Your task to perform on an android device: check storage Image 0: 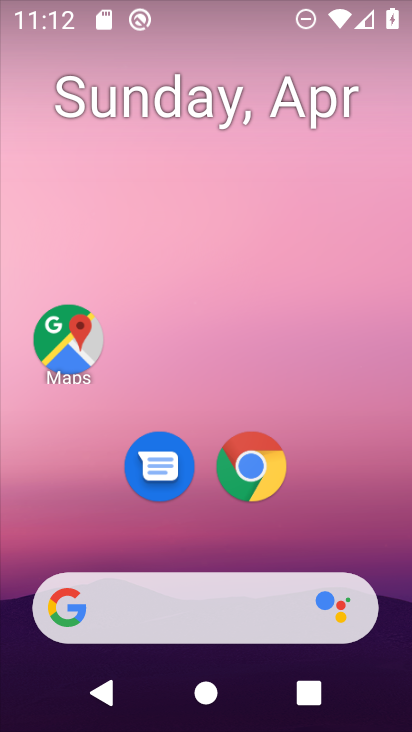
Step 0: drag from (371, 467) to (369, 103)
Your task to perform on an android device: check storage Image 1: 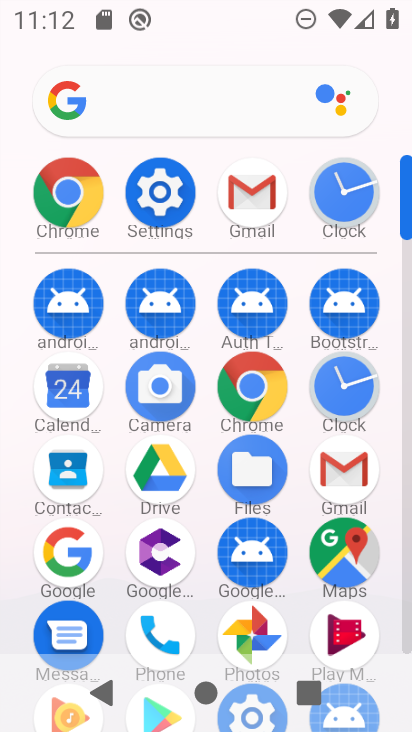
Step 1: click (163, 190)
Your task to perform on an android device: check storage Image 2: 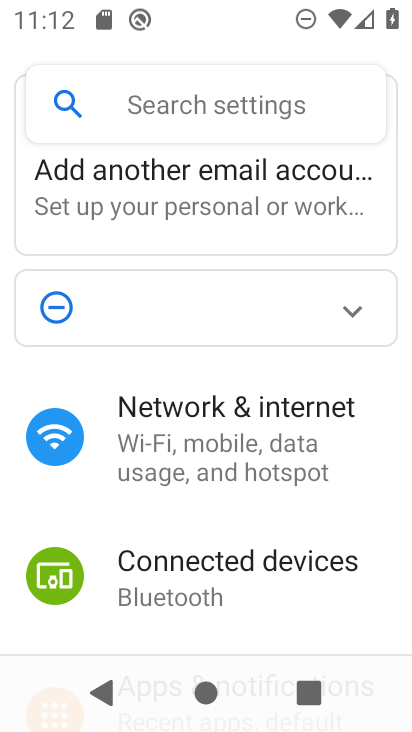
Step 2: drag from (371, 613) to (383, 408)
Your task to perform on an android device: check storage Image 3: 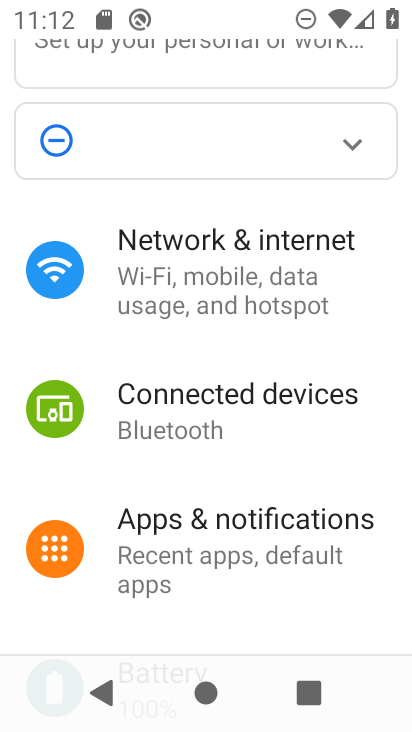
Step 3: drag from (358, 604) to (345, 365)
Your task to perform on an android device: check storage Image 4: 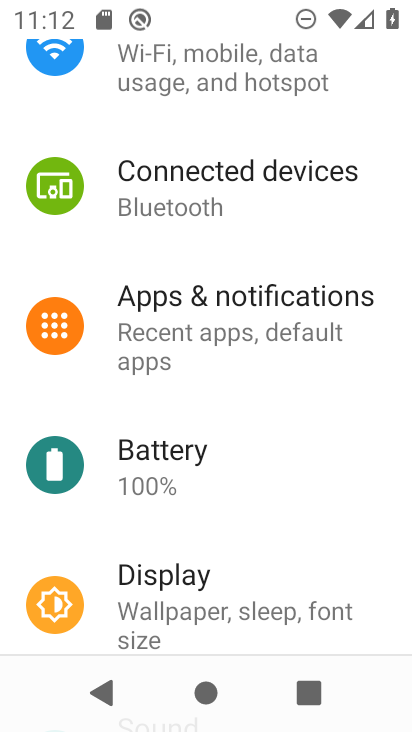
Step 4: drag from (293, 496) to (318, 298)
Your task to perform on an android device: check storage Image 5: 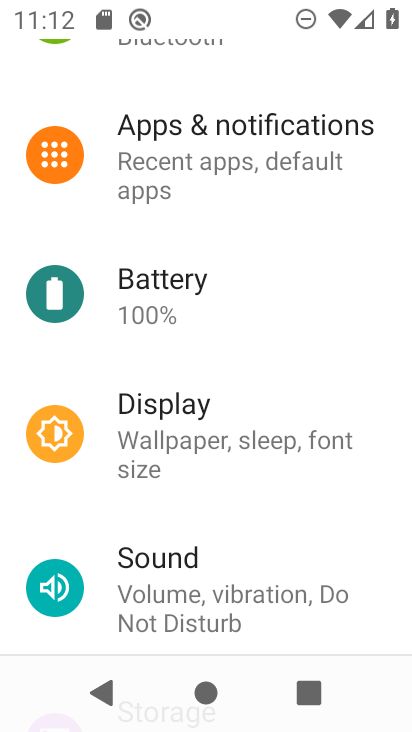
Step 5: drag from (361, 621) to (374, 365)
Your task to perform on an android device: check storage Image 6: 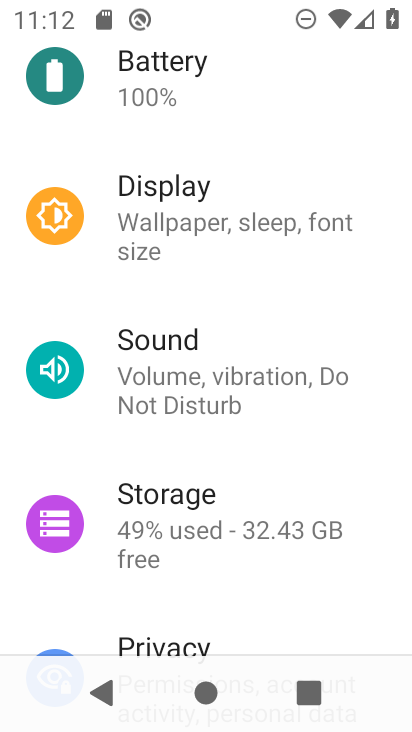
Step 6: drag from (343, 596) to (350, 343)
Your task to perform on an android device: check storage Image 7: 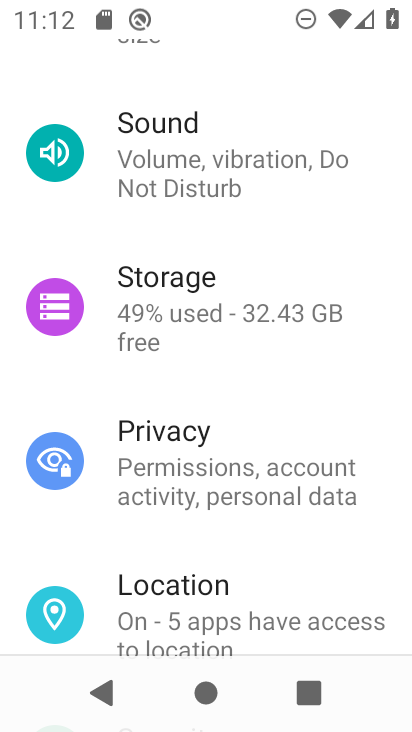
Step 7: click (286, 330)
Your task to perform on an android device: check storage Image 8: 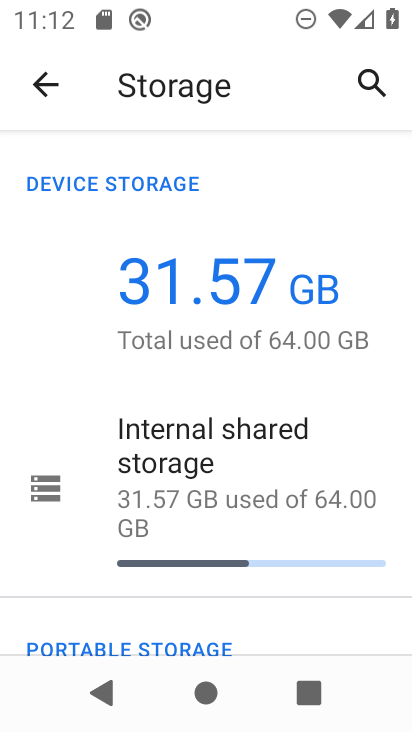
Step 8: task complete